Your task to perform on an android device: find which apps use the phone's location Image 0: 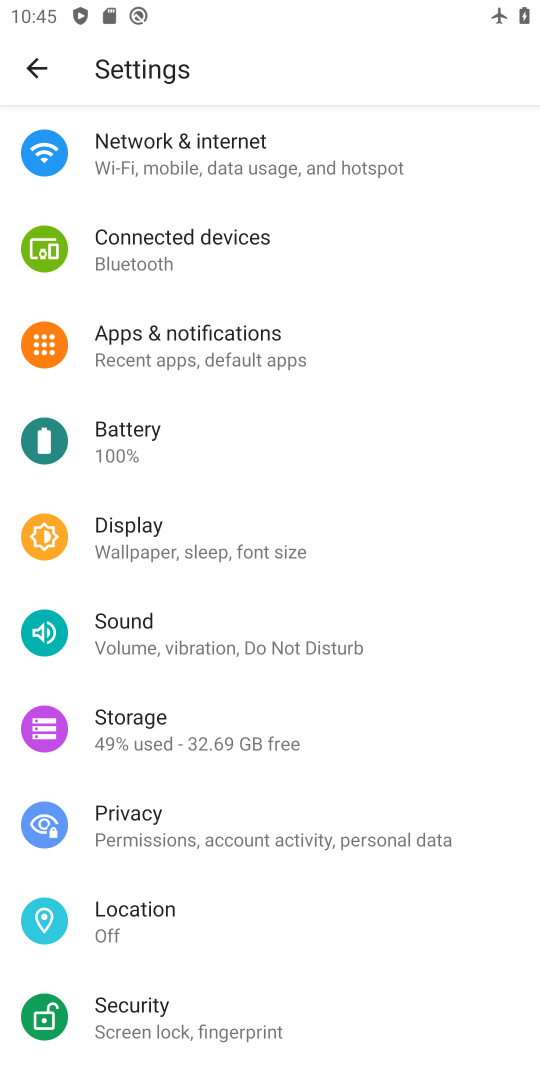
Step 0: click (115, 931)
Your task to perform on an android device: find which apps use the phone's location Image 1: 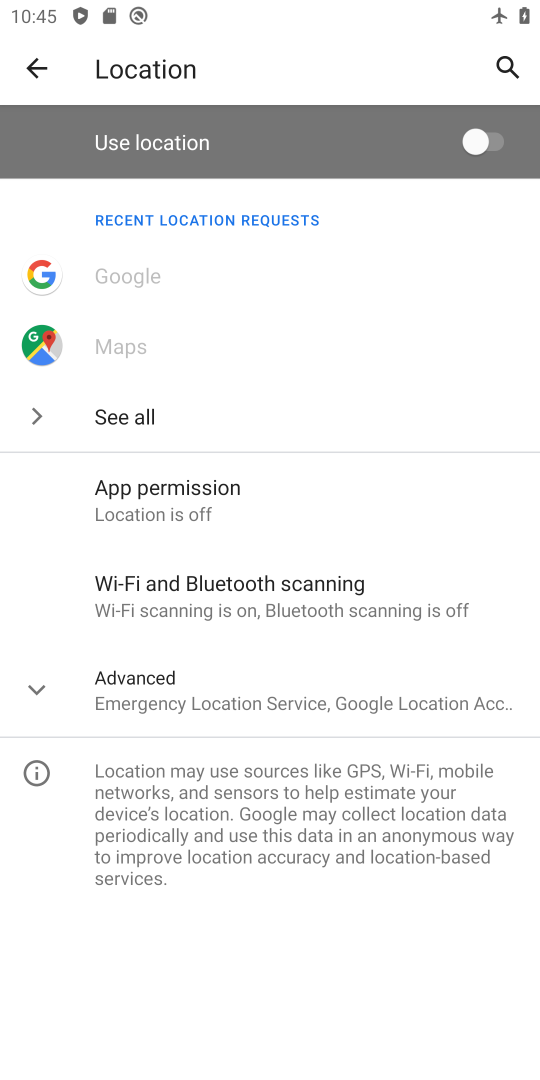
Step 1: click (77, 430)
Your task to perform on an android device: find which apps use the phone's location Image 2: 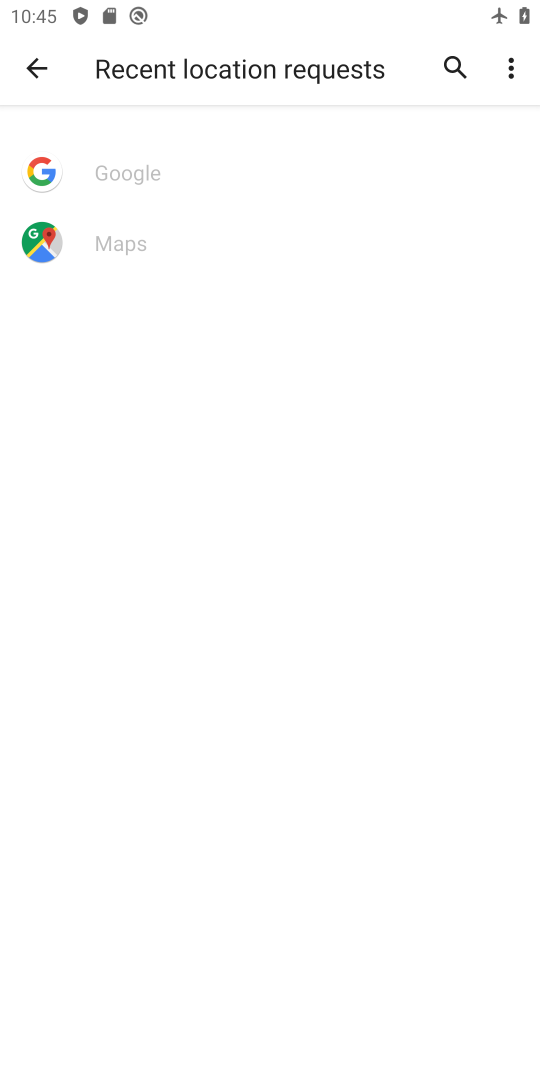
Step 2: task complete